Your task to perform on an android device: refresh tabs in the chrome app Image 0: 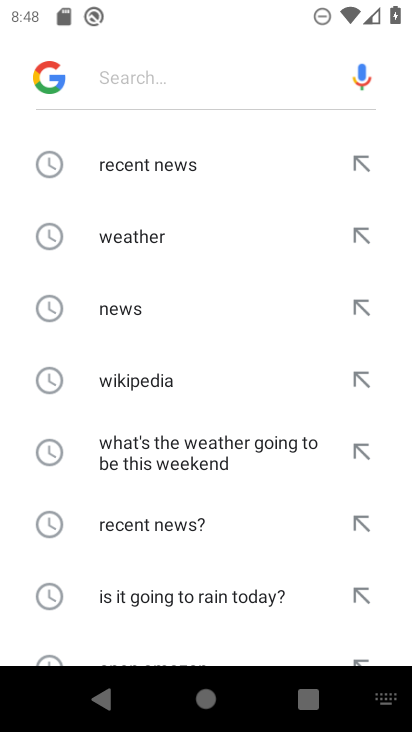
Step 0: press home button
Your task to perform on an android device: refresh tabs in the chrome app Image 1: 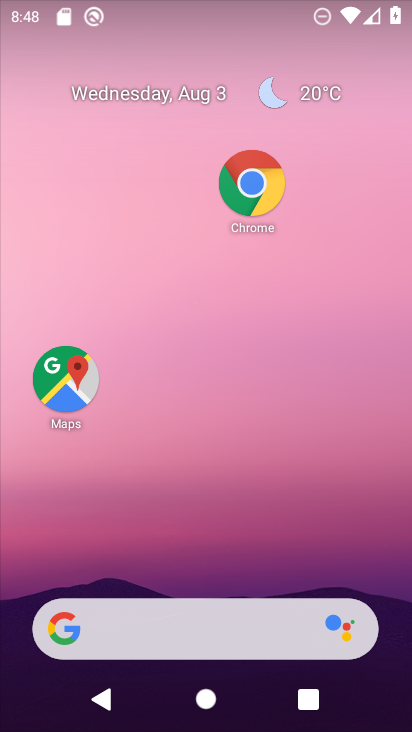
Step 1: click (253, 190)
Your task to perform on an android device: refresh tabs in the chrome app Image 2: 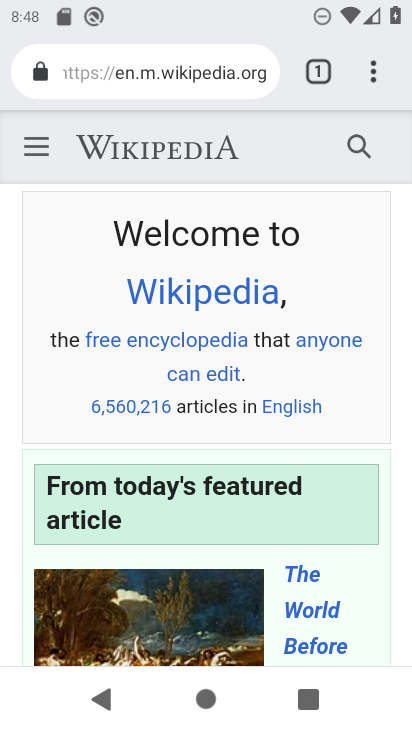
Step 2: click (373, 74)
Your task to perform on an android device: refresh tabs in the chrome app Image 3: 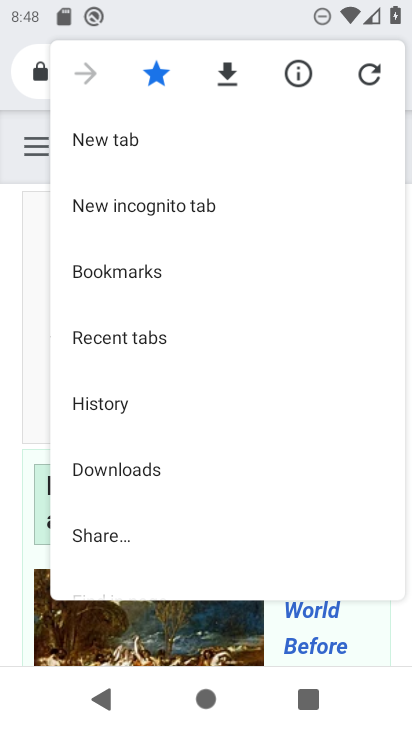
Step 3: click (367, 84)
Your task to perform on an android device: refresh tabs in the chrome app Image 4: 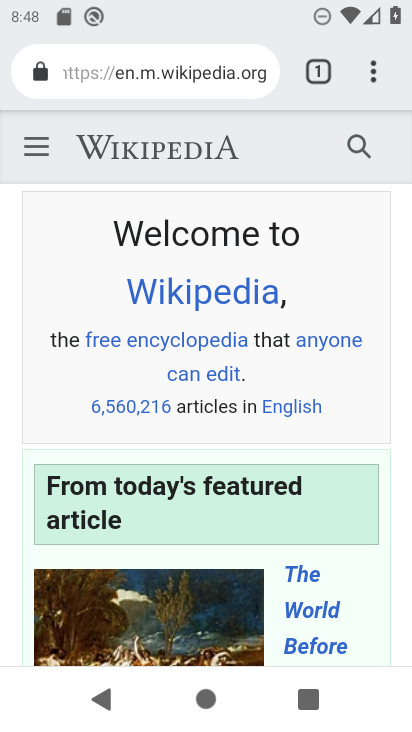
Step 4: task complete